Your task to perform on an android device: open a bookmark in the chrome app Image 0: 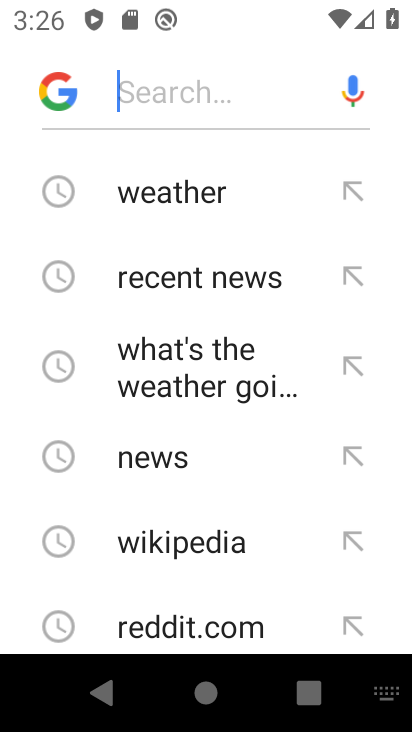
Step 0: press home button
Your task to perform on an android device: open a bookmark in the chrome app Image 1: 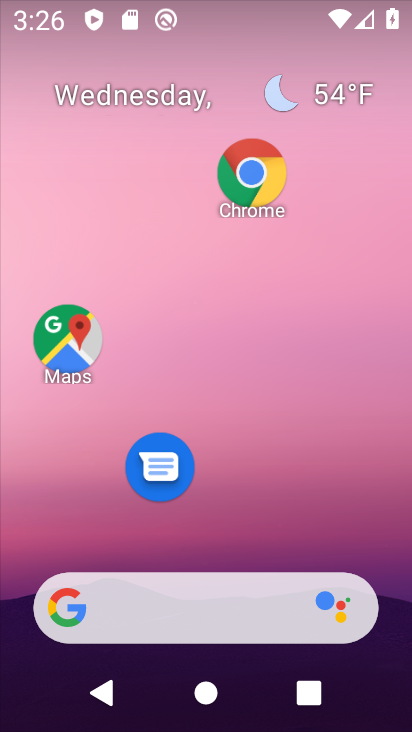
Step 1: click (255, 159)
Your task to perform on an android device: open a bookmark in the chrome app Image 2: 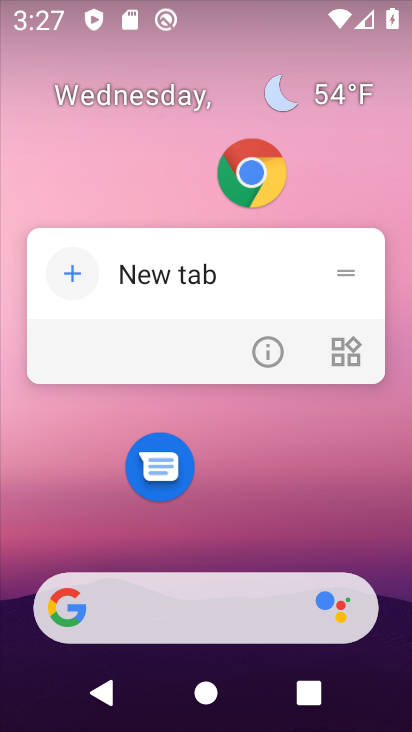
Step 2: click (256, 186)
Your task to perform on an android device: open a bookmark in the chrome app Image 3: 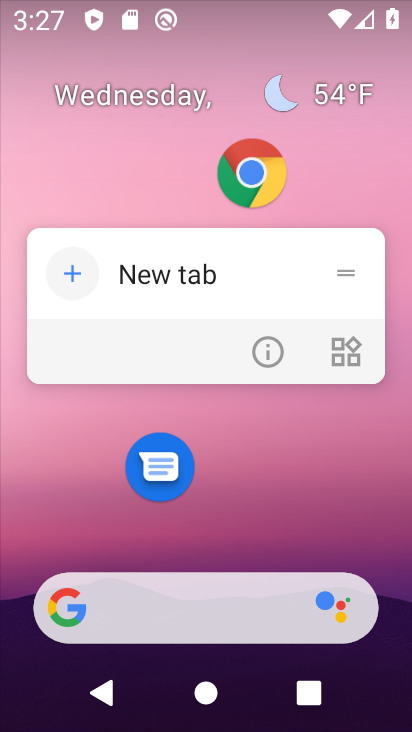
Step 3: click (258, 173)
Your task to perform on an android device: open a bookmark in the chrome app Image 4: 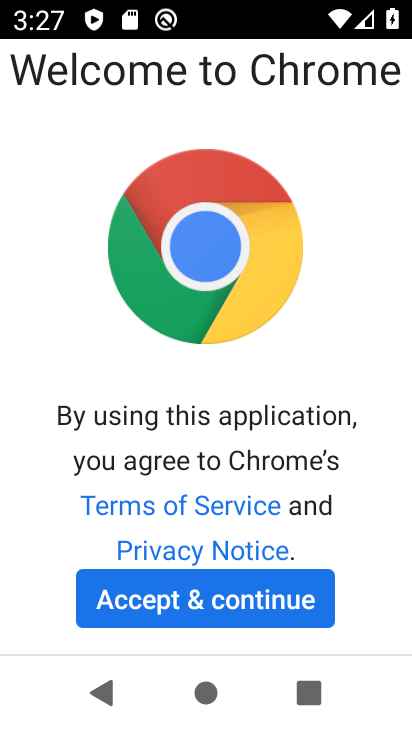
Step 4: click (210, 593)
Your task to perform on an android device: open a bookmark in the chrome app Image 5: 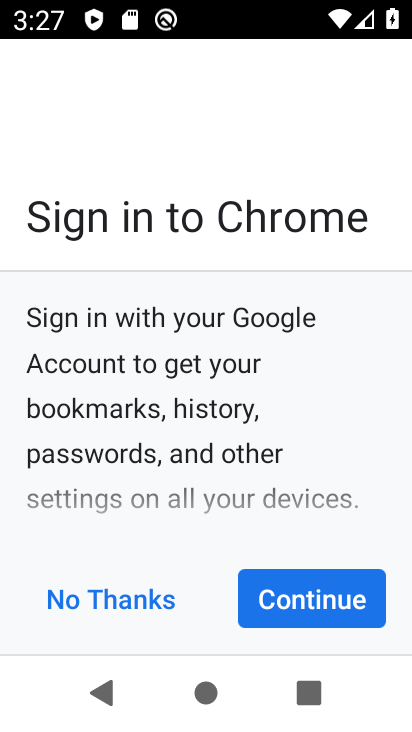
Step 5: click (305, 598)
Your task to perform on an android device: open a bookmark in the chrome app Image 6: 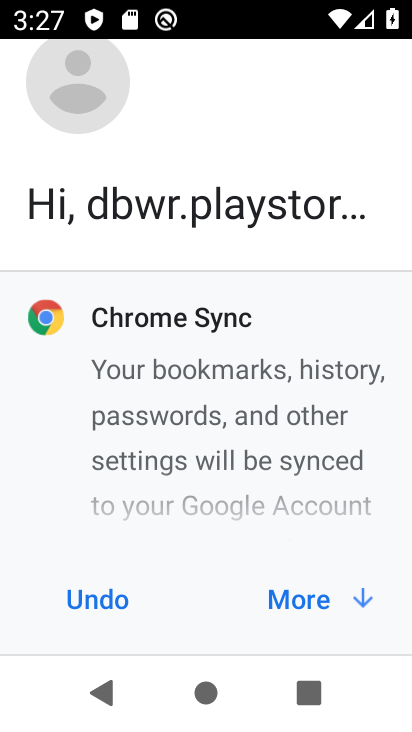
Step 6: click (306, 593)
Your task to perform on an android device: open a bookmark in the chrome app Image 7: 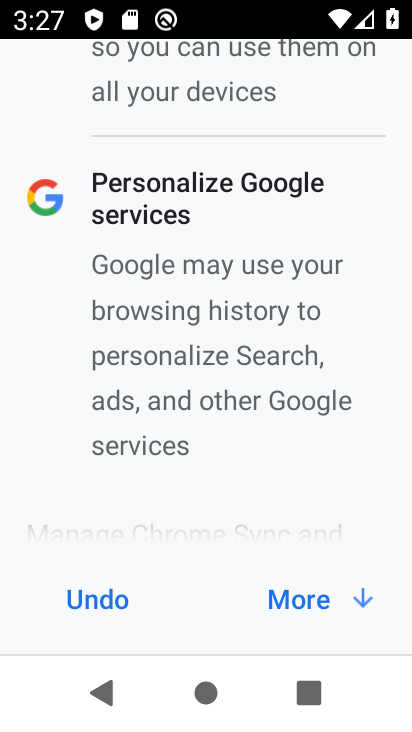
Step 7: click (308, 593)
Your task to perform on an android device: open a bookmark in the chrome app Image 8: 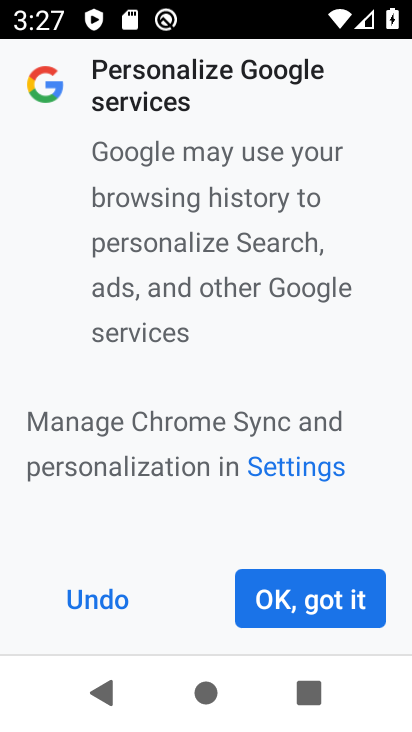
Step 8: click (318, 604)
Your task to perform on an android device: open a bookmark in the chrome app Image 9: 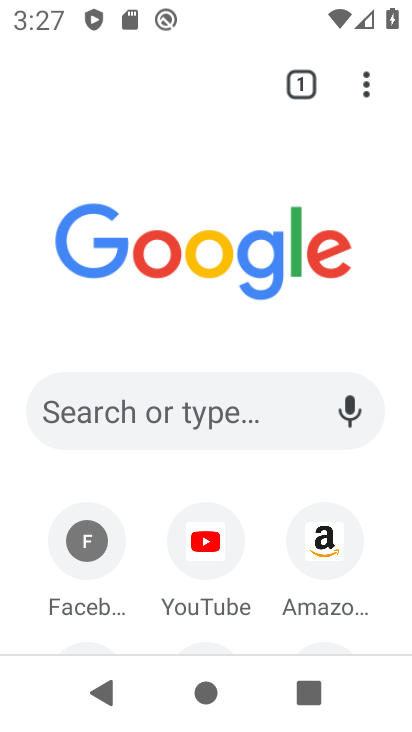
Step 9: task complete